Your task to perform on an android device: see tabs open on other devices in the chrome app Image 0: 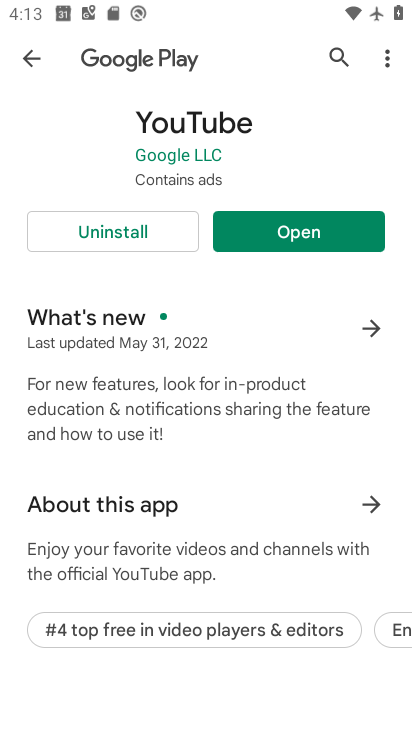
Step 0: drag from (313, 549) to (306, 242)
Your task to perform on an android device: see tabs open on other devices in the chrome app Image 1: 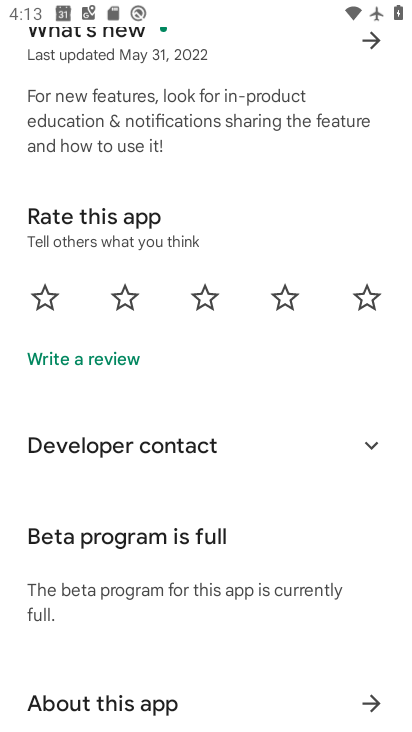
Step 1: press home button
Your task to perform on an android device: see tabs open on other devices in the chrome app Image 2: 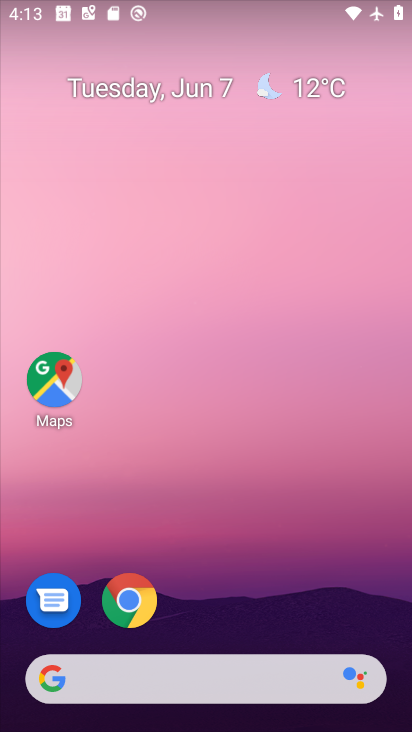
Step 2: click (131, 603)
Your task to perform on an android device: see tabs open on other devices in the chrome app Image 3: 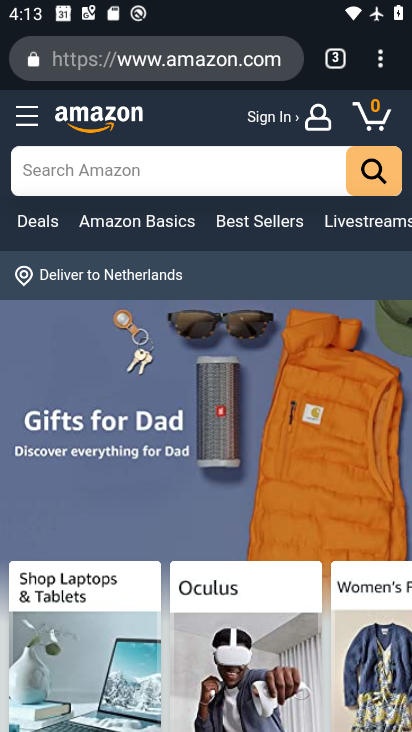
Step 3: click (379, 57)
Your task to perform on an android device: see tabs open on other devices in the chrome app Image 4: 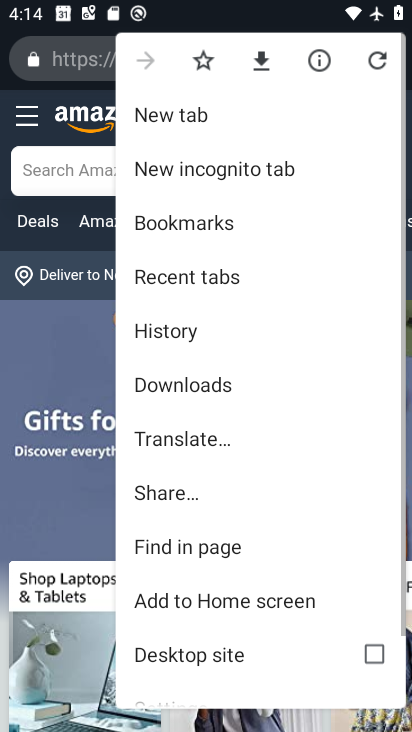
Step 4: drag from (221, 566) to (285, 196)
Your task to perform on an android device: see tabs open on other devices in the chrome app Image 5: 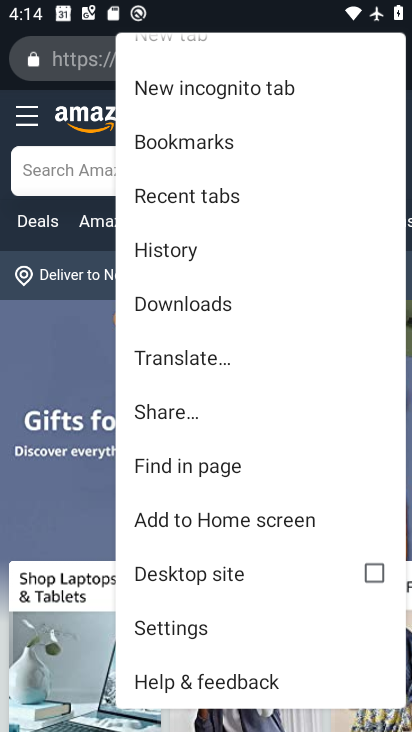
Step 5: click (207, 206)
Your task to perform on an android device: see tabs open on other devices in the chrome app Image 6: 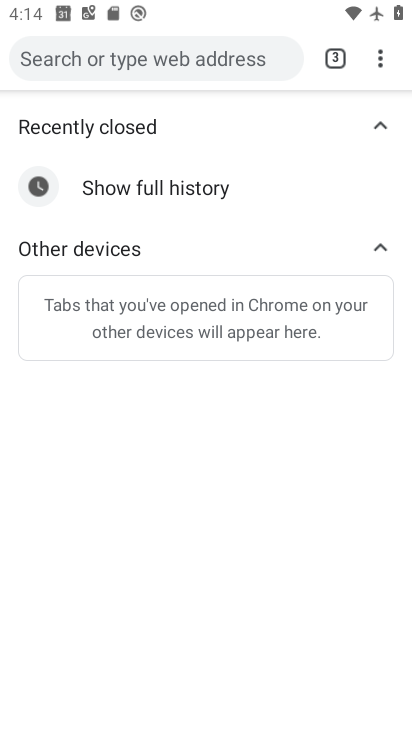
Step 6: task complete